Your task to perform on an android device: turn pop-ups off in chrome Image 0: 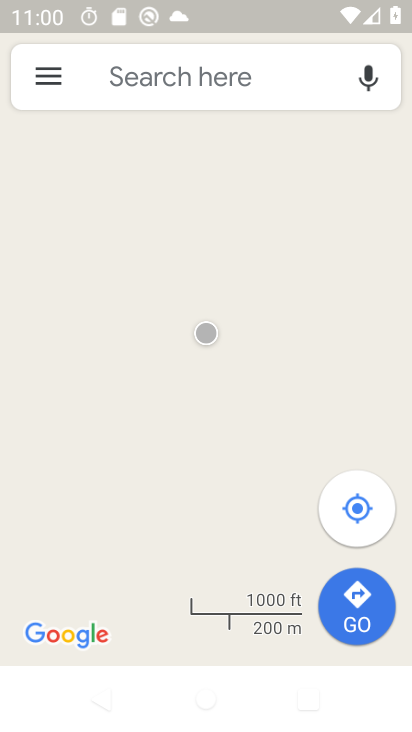
Step 0: press home button
Your task to perform on an android device: turn pop-ups off in chrome Image 1: 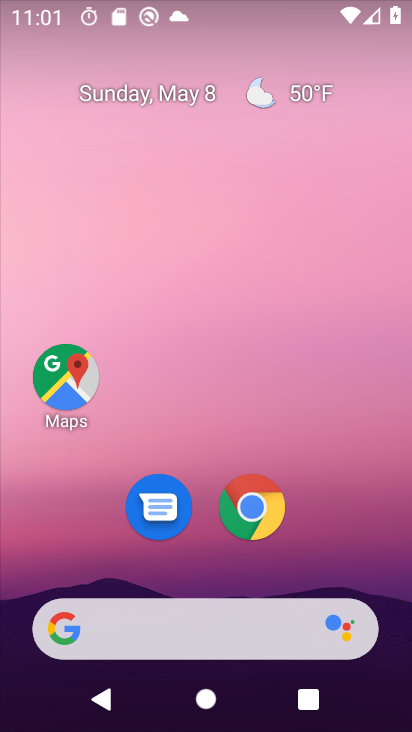
Step 1: click (259, 502)
Your task to perform on an android device: turn pop-ups off in chrome Image 2: 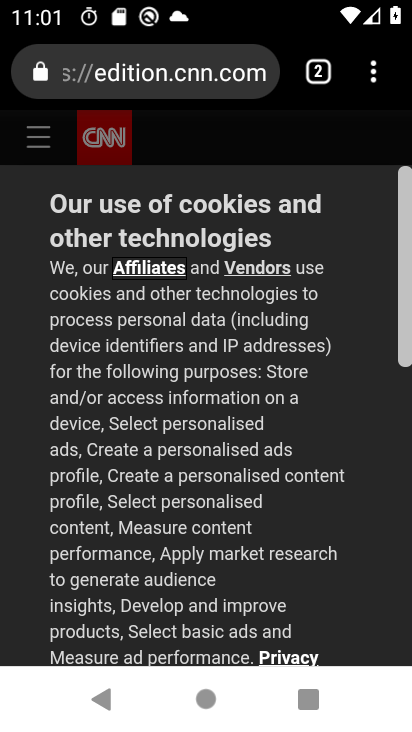
Step 2: click (373, 77)
Your task to perform on an android device: turn pop-ups off in chrome Image 3: 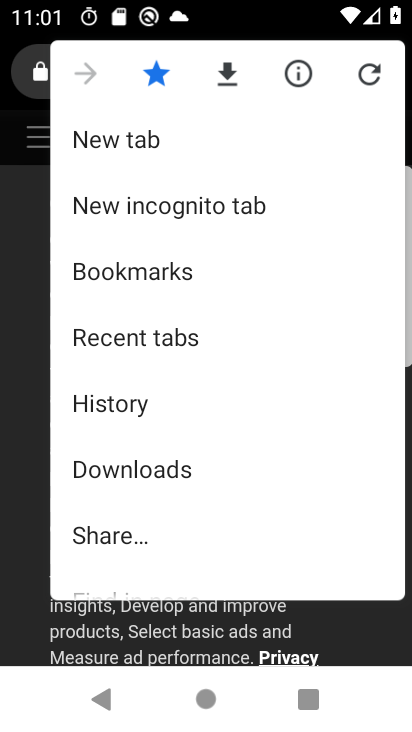
Step 3: drag from (124, 518) to (113, 207)
Your task to perform on an android device: turn pop-ups off in chrome Image 4: 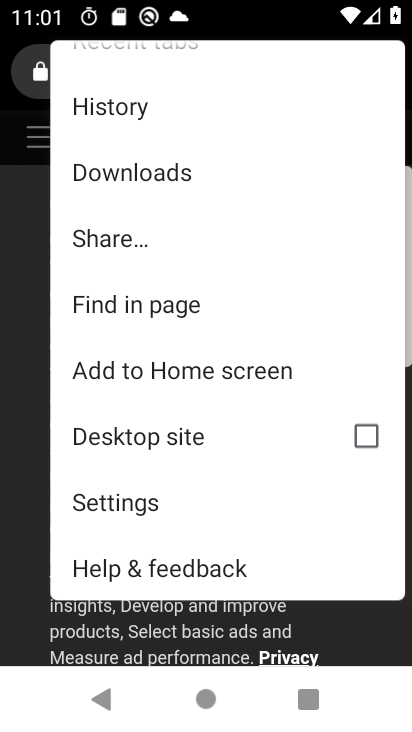
Step 4: click (125, 500)
Your task to perform on an android device: turn pop-ups off in chrome Image 5: 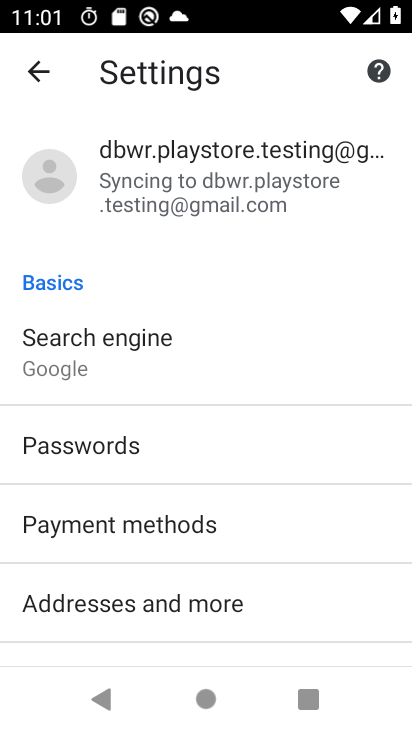
Step 5: drag from (161, 649) to (161, 323)
Your task to perform on an android device: turn pop-ups off in chrome Image 6: 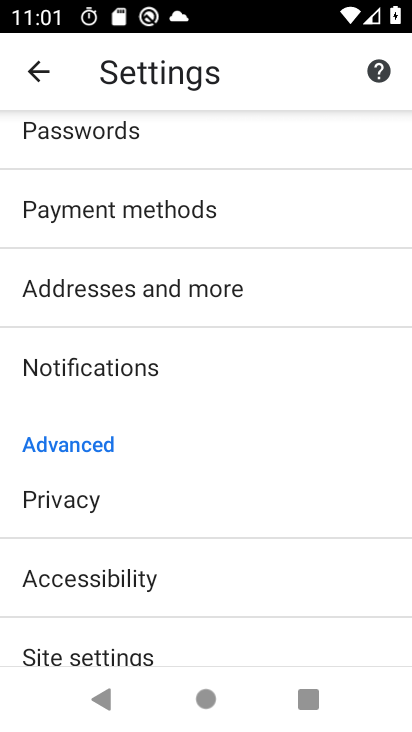
Step 6: drag from (141, 634) to (157, 399)
Your task to perform on an android device: turn pop-ups off in chrome Image 7: 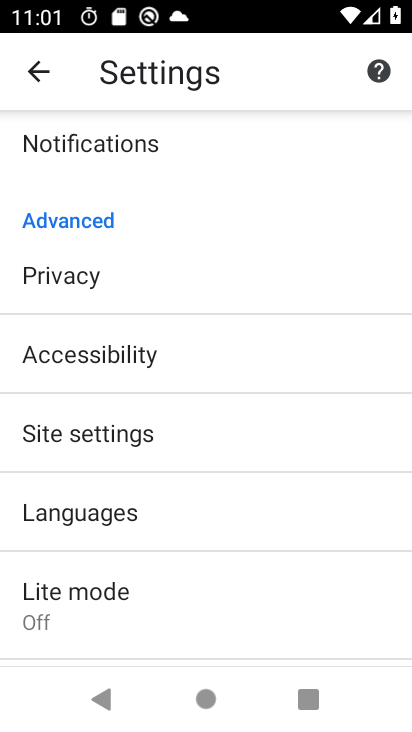
Step 7: click (93, 433)
Your task to perform on an android device: turn pop-ups off in chrome Image 8: 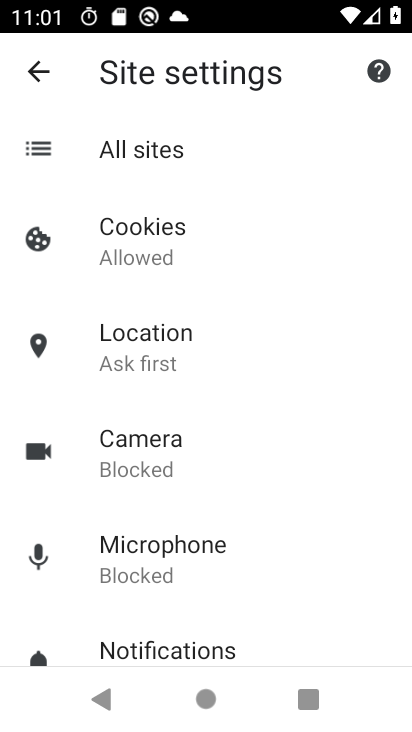
Step 8: drag from (139, 638) to (142, 291)
Your task to perform on an android device: turn pop-ups off in chrome Image 9: 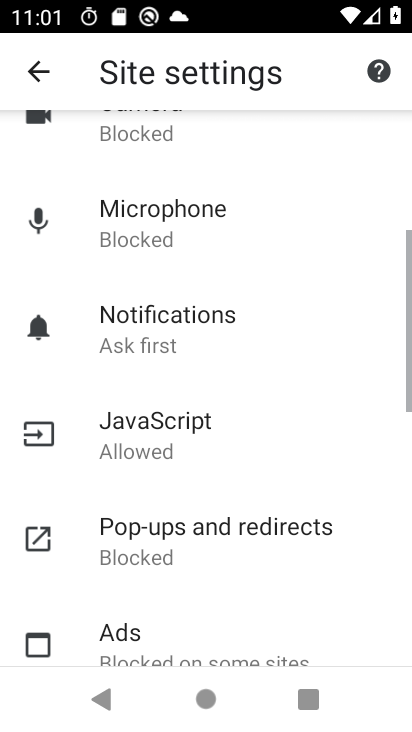
Step 9: click (167, 535)
Your task to perform on an android device: turn pop-ups off in chrome Image 10: 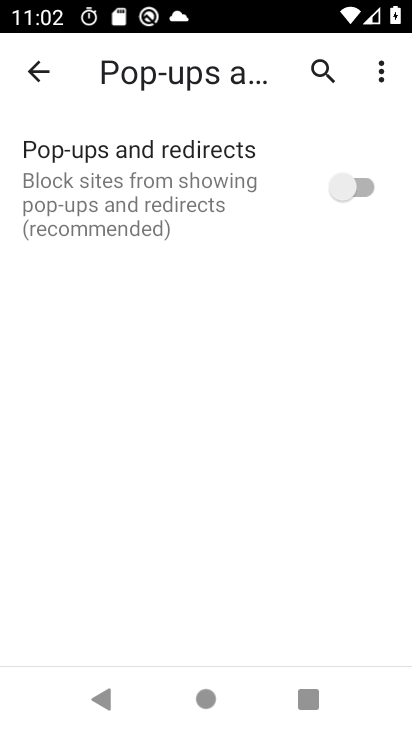
Step 10: task complete